Your task to perform on an android device: toggle notification dots Image 0: 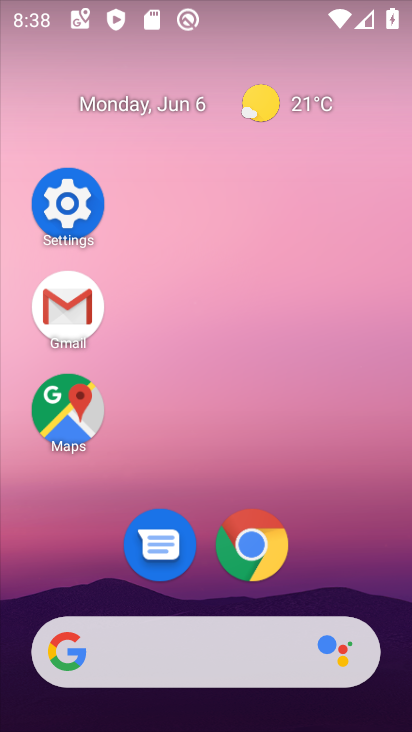
Step 0: click (91, 208)
Your task to perform on an android device: toggle notification dots Image 1: 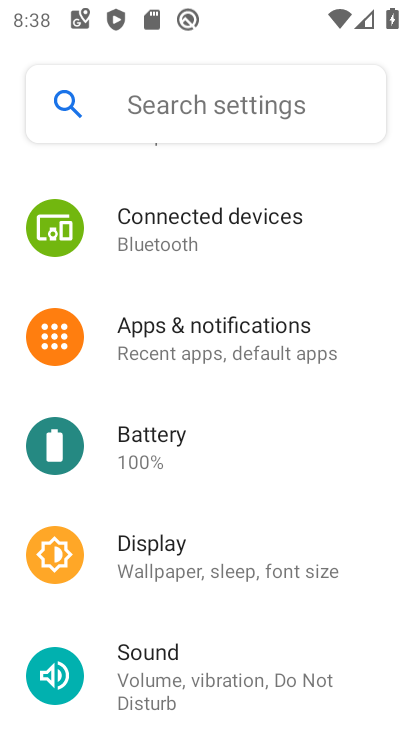
Step 1: click (208, 372)
Your task to perform on an android device: toggle notification dots Image 2: 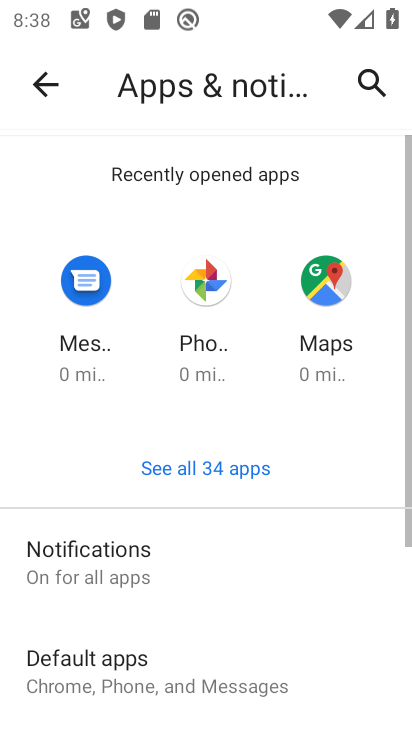
Step 2: drag from (267, 532) to (249, 235)
Your task to perform on an android device: toggle notification dots Image 3: 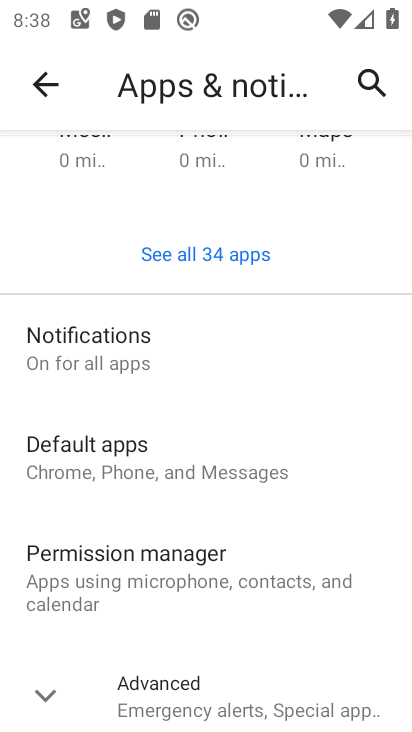
Step 3: click (207, 359)
Your task to perform on an android device: toggle notification dots Image 4: 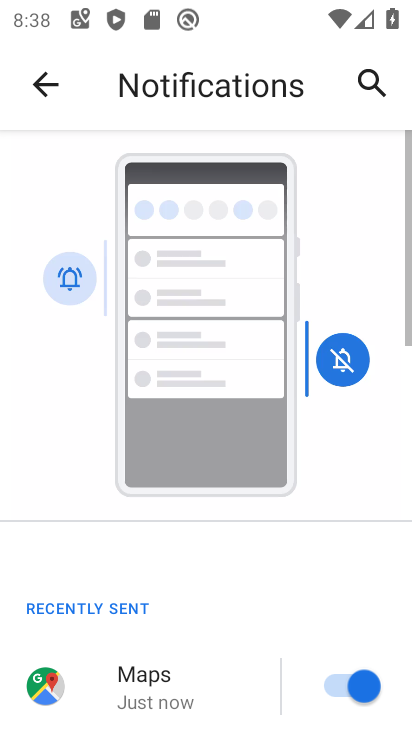
Step 4: drag from (245, 568) to (222, 159)
Your task to perform on an android device: toggle notification dots Image 5: 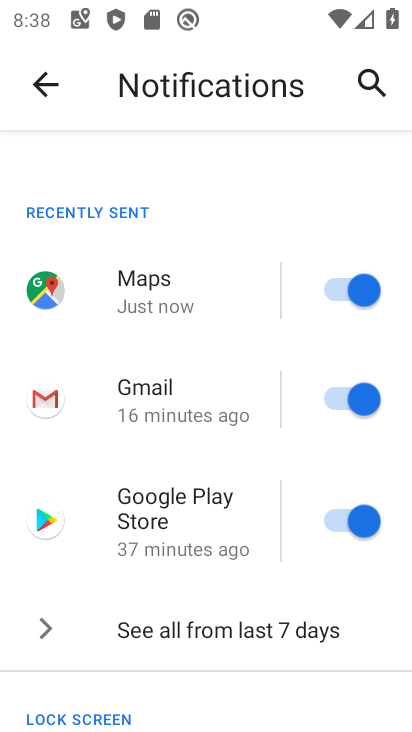
Step 5: drag from (202, 597) to (229, 261)
Your task to perform on an android device: toggle notification dots Image 6: 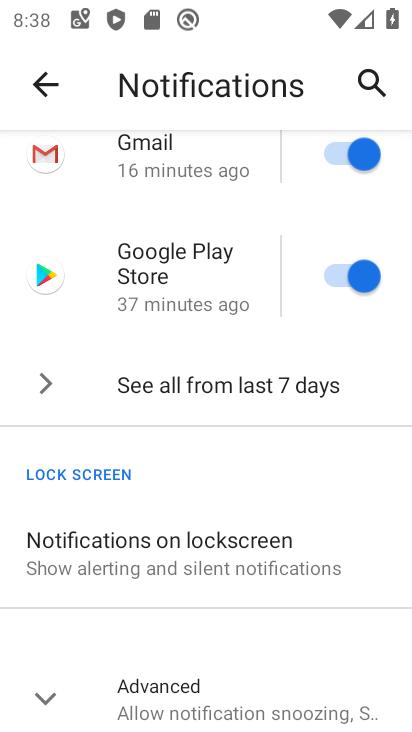
Step 6: click (213, 686)
Your task to perform on an android device: toggle notification dots Image 7: 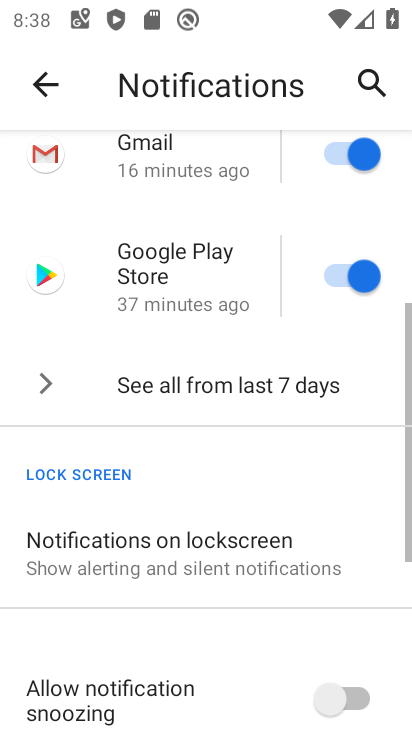
Step 7: drag from (209, 684) to (242, 293)
Your task to perform on an android device: toggle notification dots Image 8: 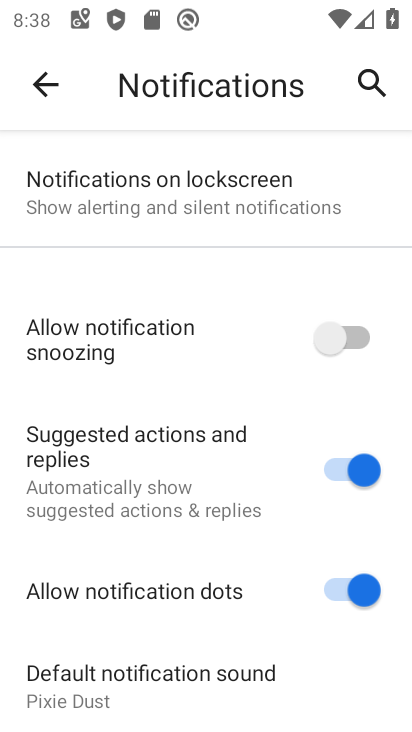
Step 8: click (346, 577)
Your task to perform on an android device: toggle notification dots Image 9: 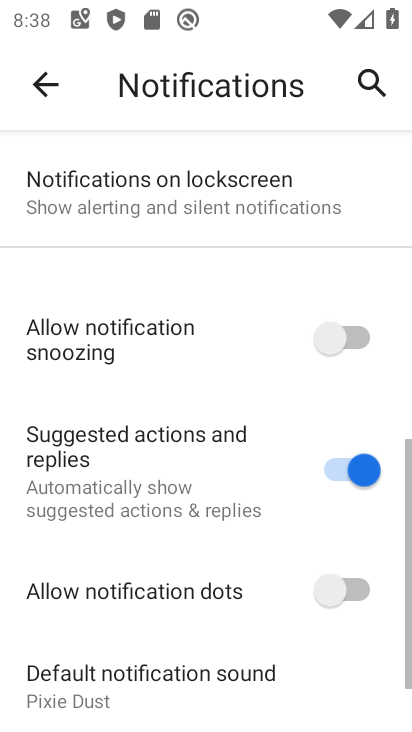
Step 9: task complete